Your task to perform on an android device: Set the phone to "Do not disturb". Image 0: 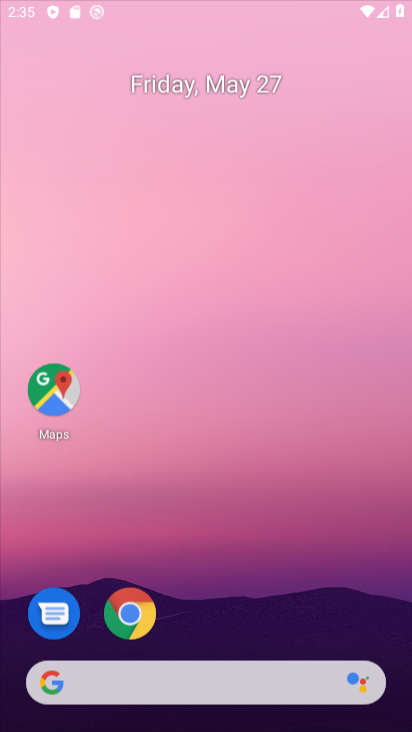
Step 0: click (207, 19)
Your task to perform on an android device: Set the phone to "Do not disturb". Image 1: 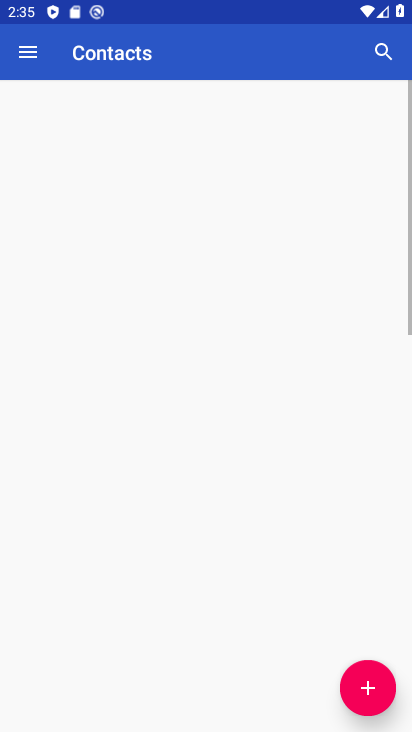
Step 1: press home button
Your task to perform on an android device: Set the phone to "Do not disturb". Image 2: 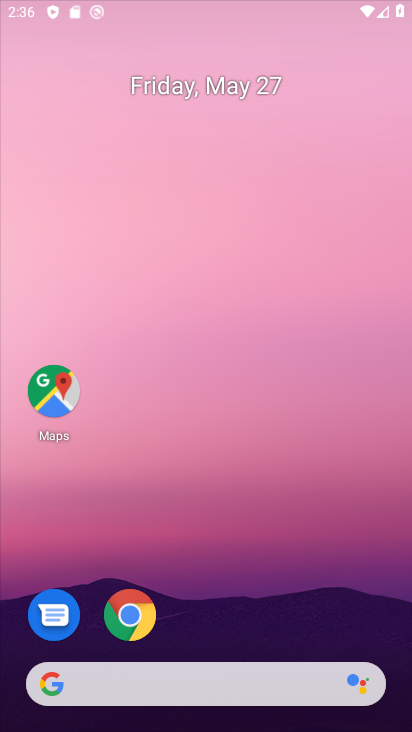
Step 2: drag from (274, 398) to (189, 32)
Your task to perform on an android device: Set the phone to "Do not disturb". Image 3: 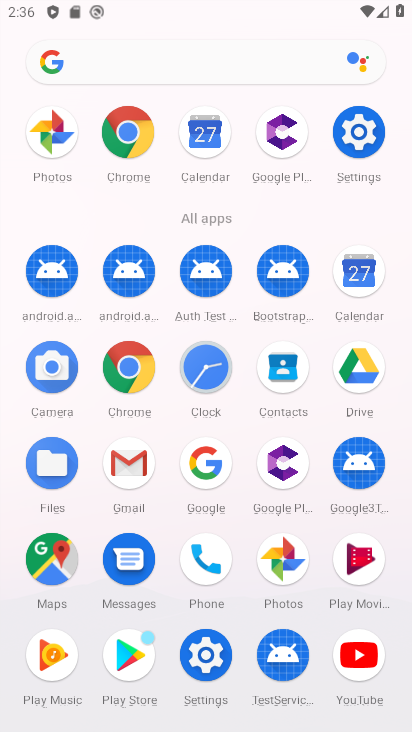
Step 3: click (354, 136)
Your task to perform on an android device: Set the phone to "Do not disturb". Image 4: 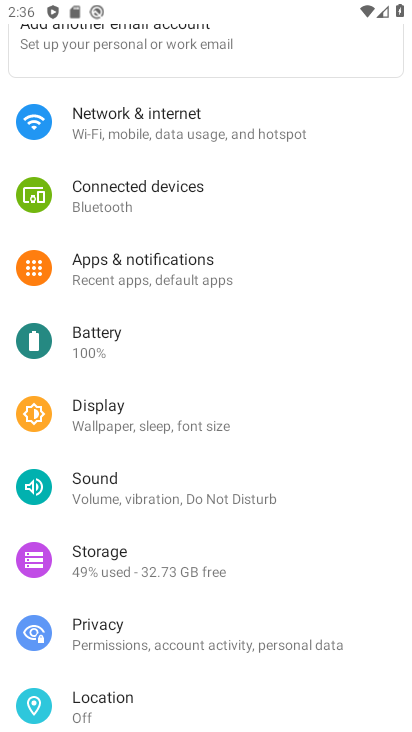
Step 4: click (203, 487)
Your task to perform on an android device: Set the phone to "Do not disturb". Image 5: 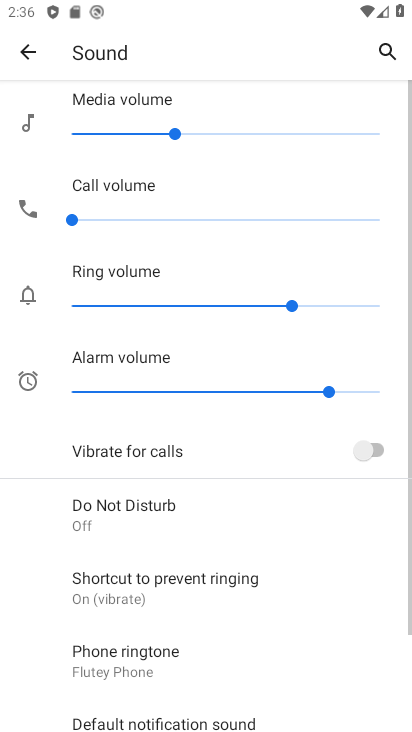
Step 5: click (183, 496)
Your task to perform on an android device: Set the phone to "Do not disturb". Image 6: 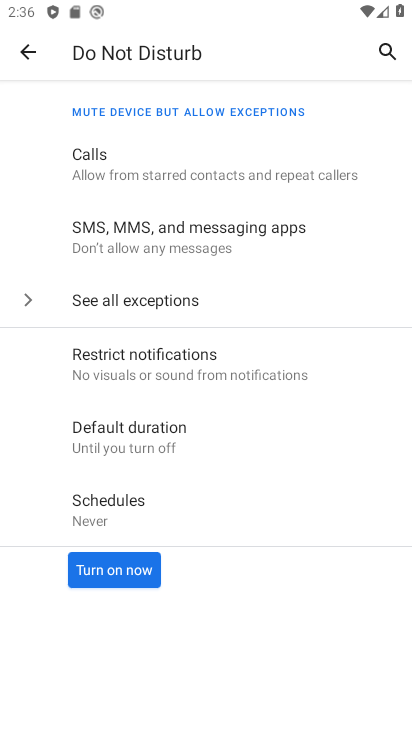
Step 6: click (126, 572)
Your task to perform on an android device: Set the phone to "Do not disturb". Image 7: 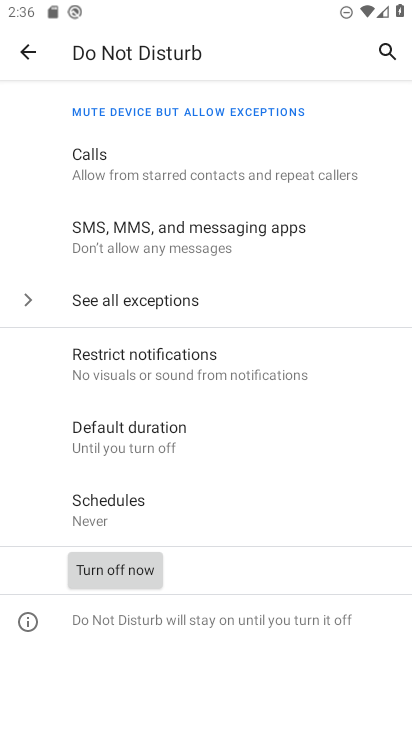
Step 7: task complete